Your task to perform on an android device: open device folders in google photos Image 0: 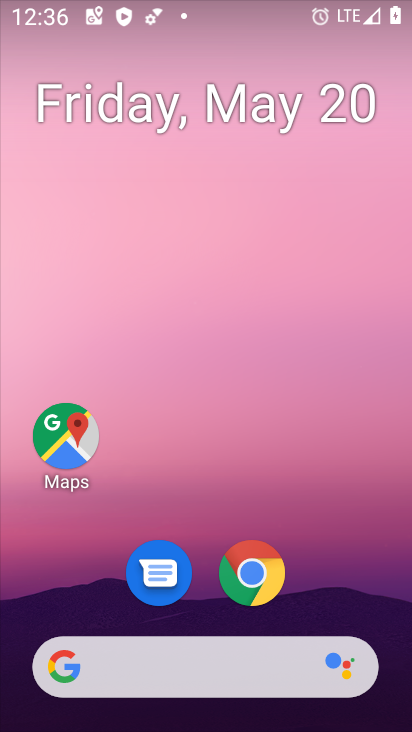
Step 0: drag from (339, 589) to (357, 92)
Your task to perform on an android device: open device folders in google photos Image 1: 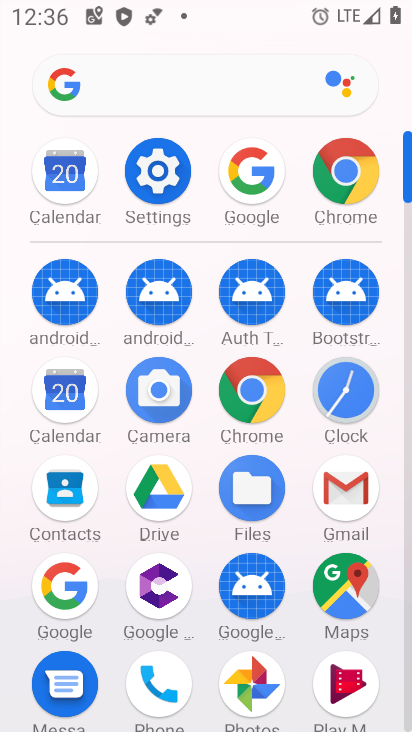
Step 1: click (256, 678)
Your task to perform on an android device: open device folders in google photos Image 2: 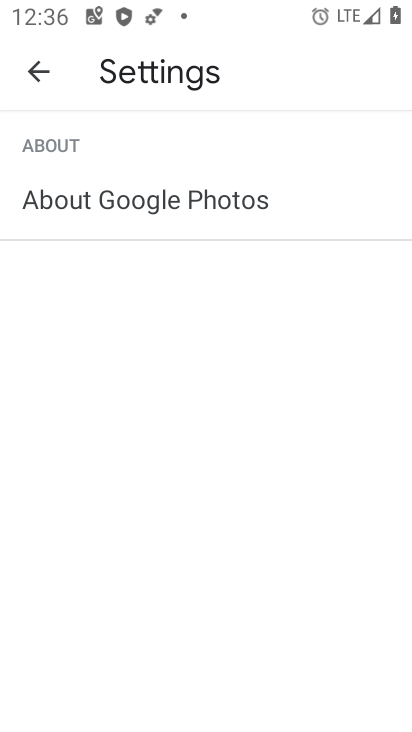
Step 2: press back button
Your task to perform on an android device: open device folders in google photos Image 3: 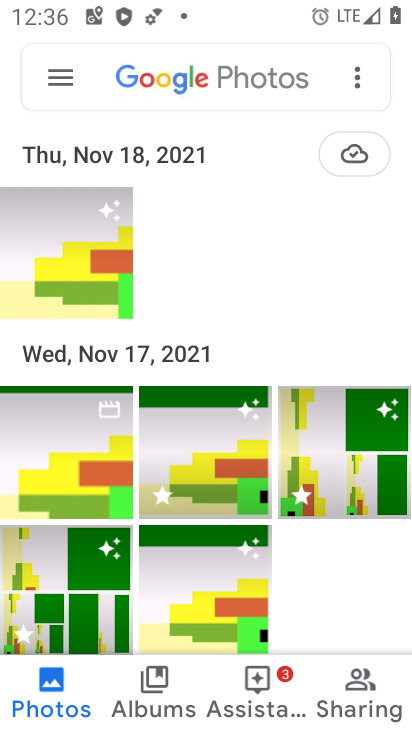
Step 3: click (63, 77)
Your task to perform on an android device: open device folders in google photos Image 4: 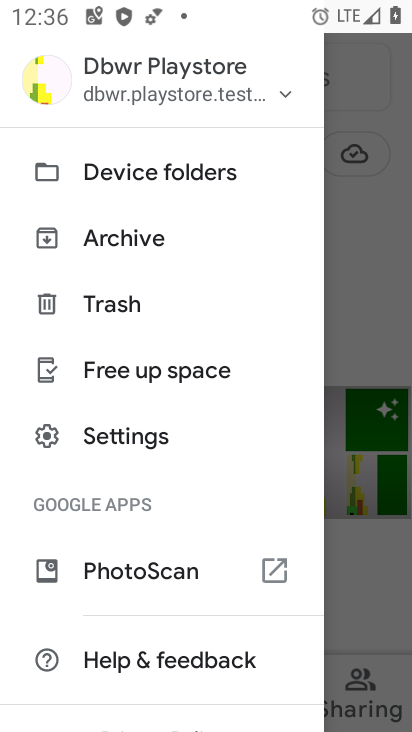
Step 4: click (170, 182)
Your task to perform on an android device: open device folders in google photos Image 5: 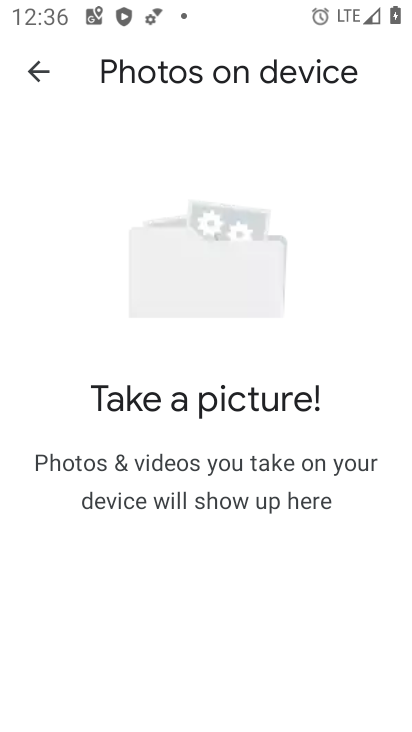
Step 5: task complete